Your task to perform on an android device: Open the phone app and click the voicemail tab. Image 0: 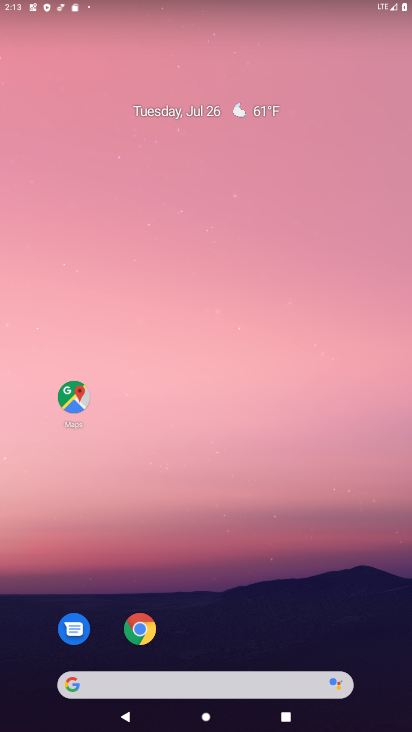
Step 0: drag from (233, 582) to (205, 3)
Your task to perform on an android device: Open the phone app and click the voicemail tab. Image 1: 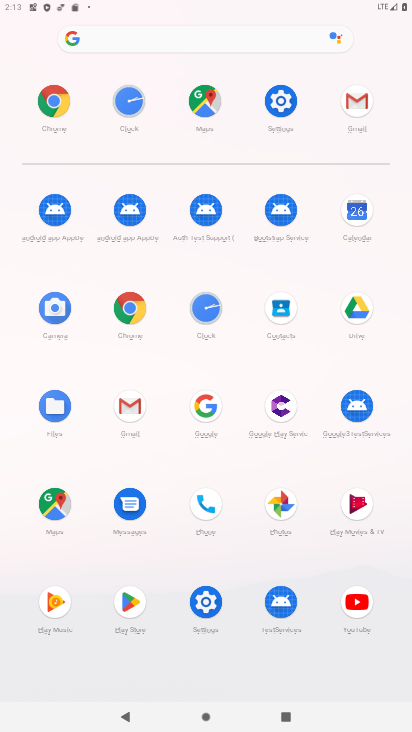
Step 1: click (200, 507)
Your task to perform on an android device: Open the phone app and click the voicemail tab. Image 2: 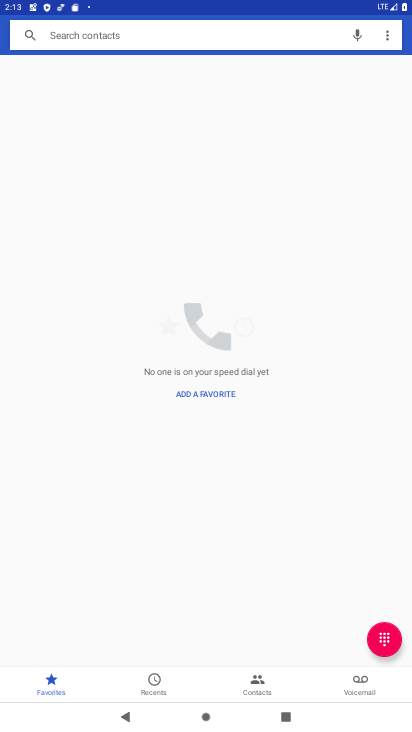
Step 2: click (350, 686)
Your task to perform on an android device: Open the phone app and click the voicemail tab. Image 3: 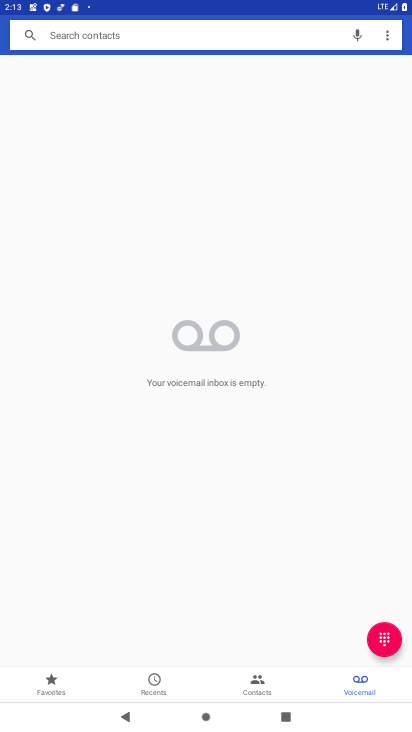
Step 3: task complete